Your task to perform on an android device: Open display settings Image 0: 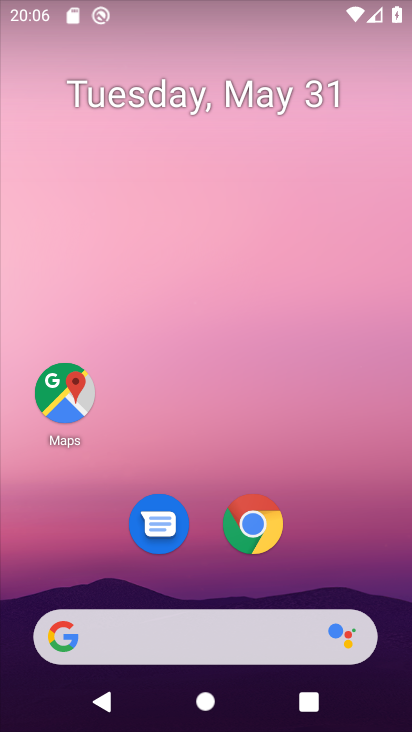
Step 0: drag from (298, 548) to (285, 5)
Your task to perform on an android device: Open display settings Image 1: 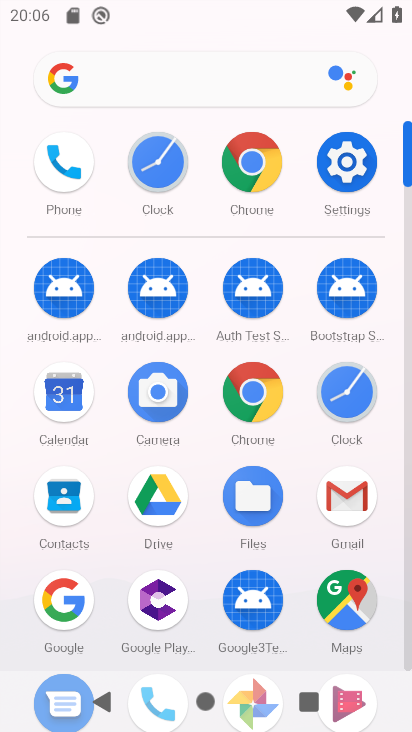
Step 1: click (347, 156)
Your task to perform on an android device: Open display settings Image 2: 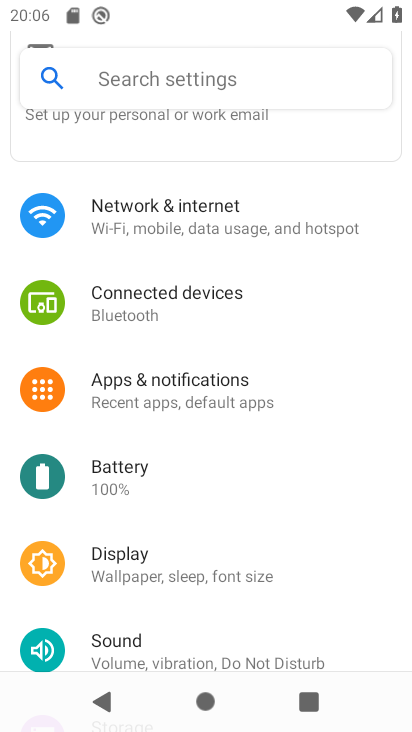
Step 2: click (178, 576)
Your task to perform on an android device: Open display settings Image 3: 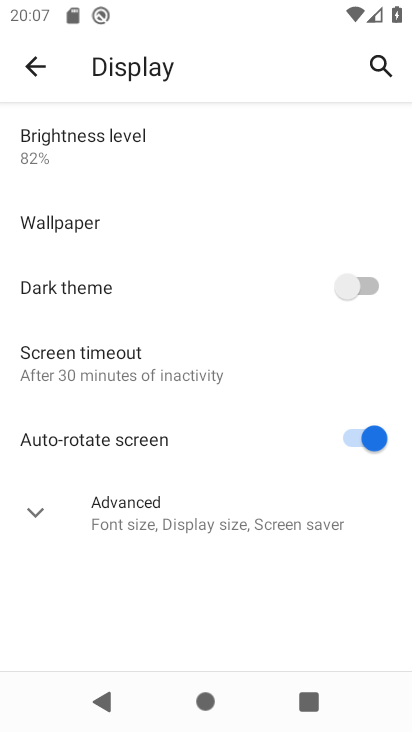
Step 3: task complete